Your task to perform on an android device: open app "Gmail" (install if not already installed) Image 0: 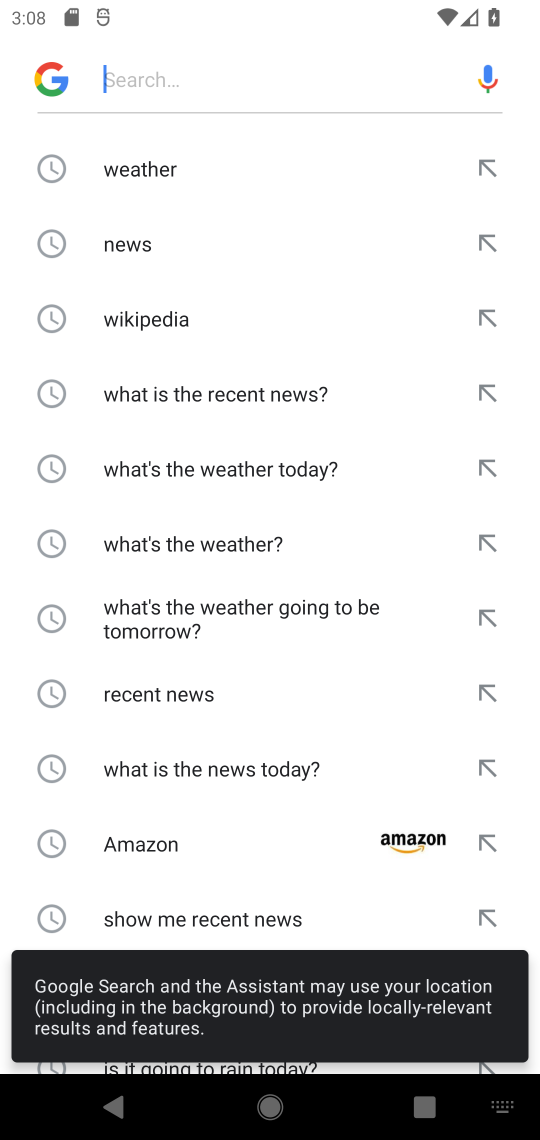
Step 0: press home button
Your task to perform on an android device: open app "Gmail" (install if not already installed) Image 1: 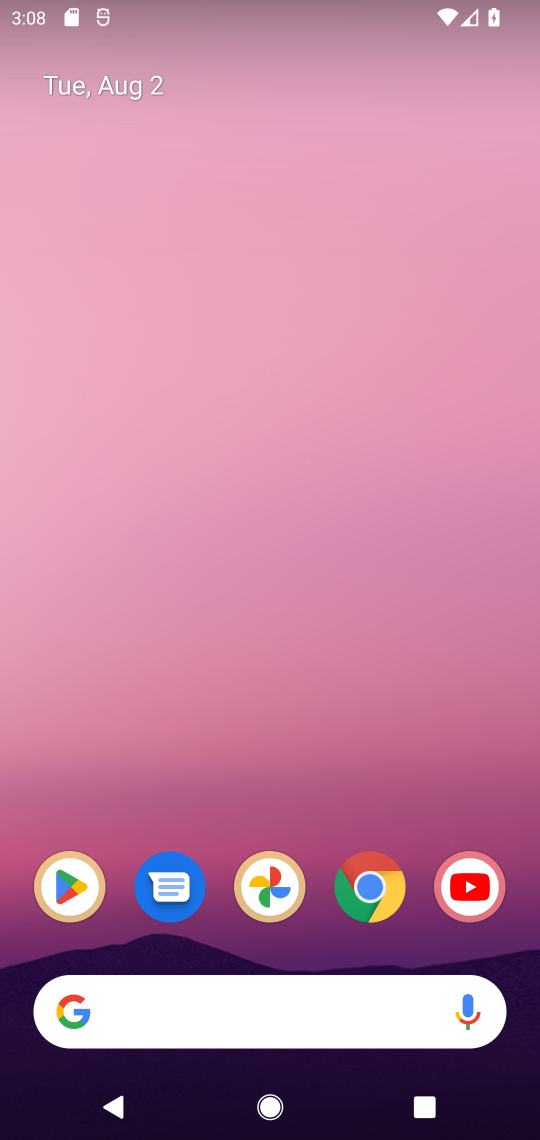
Step 1: drag from (68, 1081) to (425, 333)
Your task to perform on an android device: open app "Gmail" (install if not already installed) Image 2: 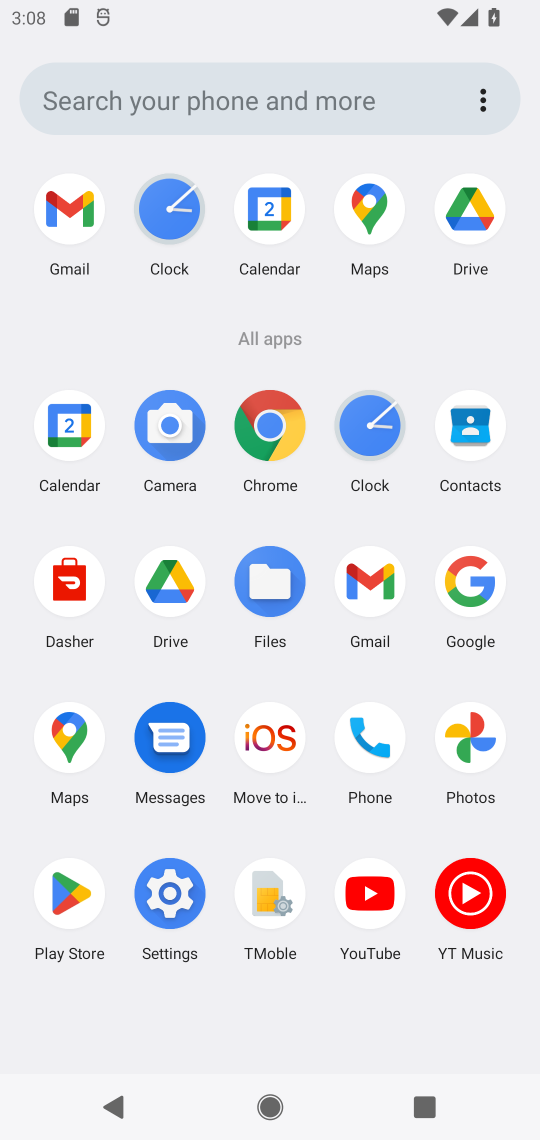
Step 2: click (374, 592)
Your task to perform on an android device: open app "Gmail" (install if not already installed) Image 3: 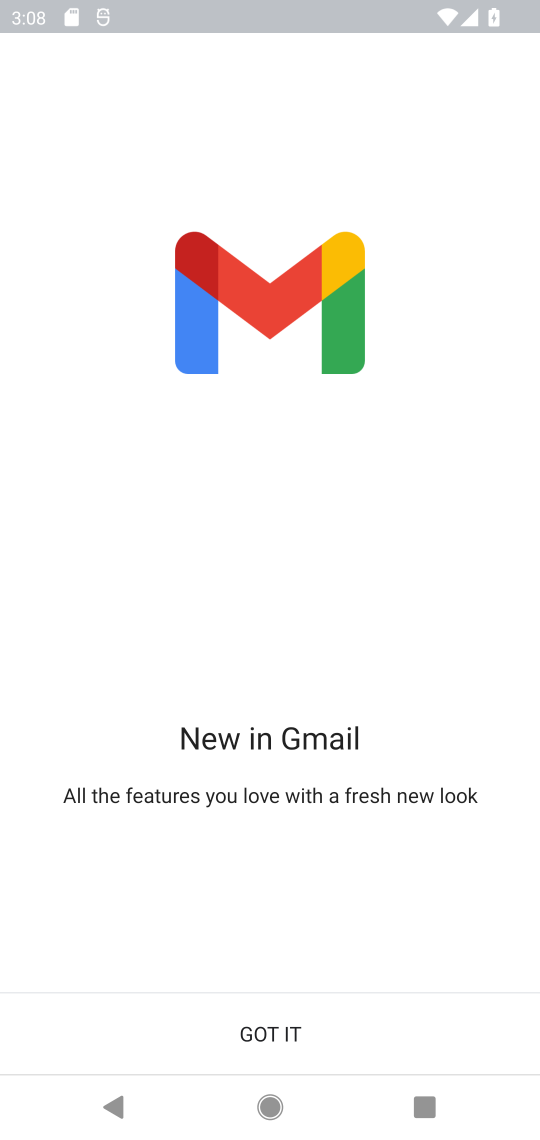
Step 3: click (237, 1038)
Your task to perform on an android device: open app "Gmail" (install if not already installed) Image 4: 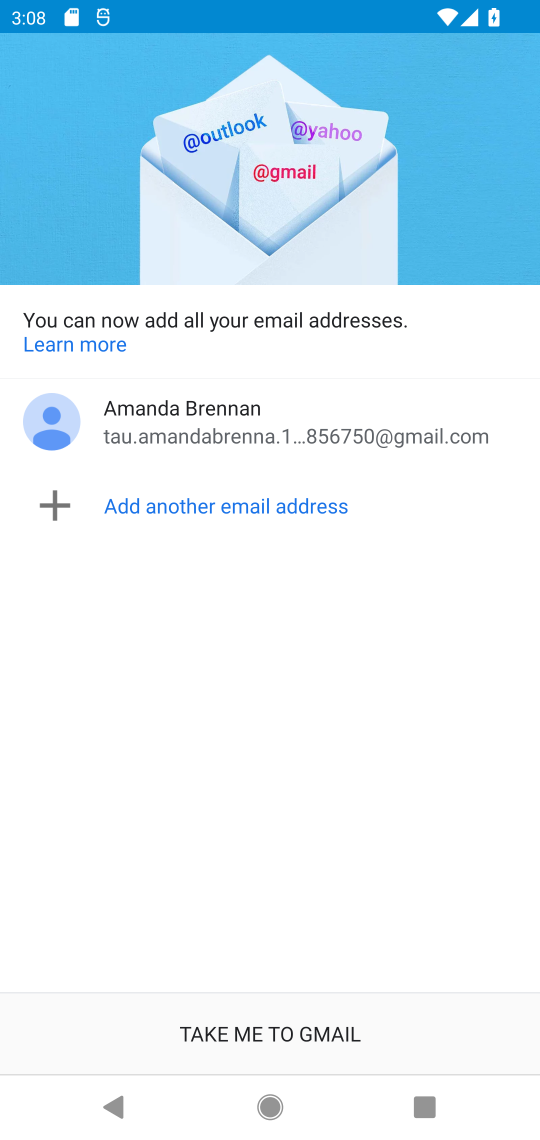
Step 4: click (252, 1036)
Your task to perform on an android device: open app "Gmail" (install if not already installed) Image 5: 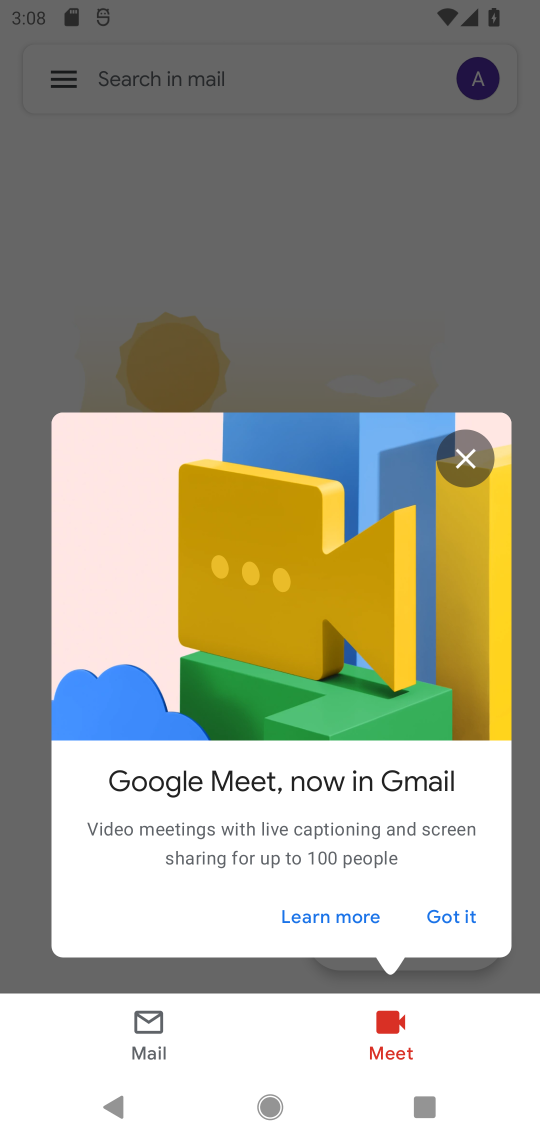
Step 5: click (156, 1055)
Your task to perform on an android device: open app "Gmail" (install if not already installed) Image 6: 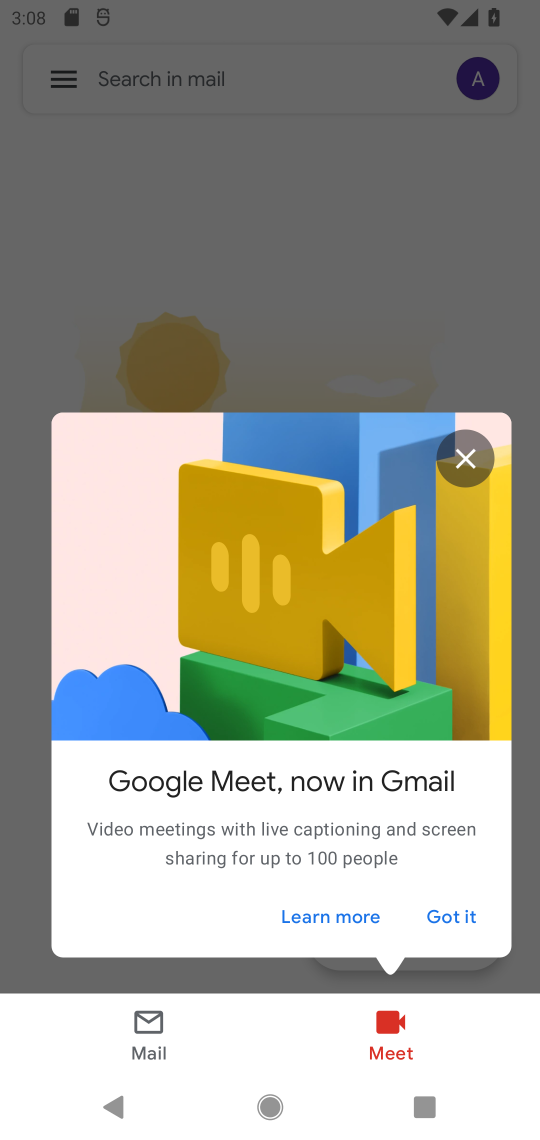
Step 6: task complete